Your task to perform on an android device: choose inbox layout in the gmail app Image 0: 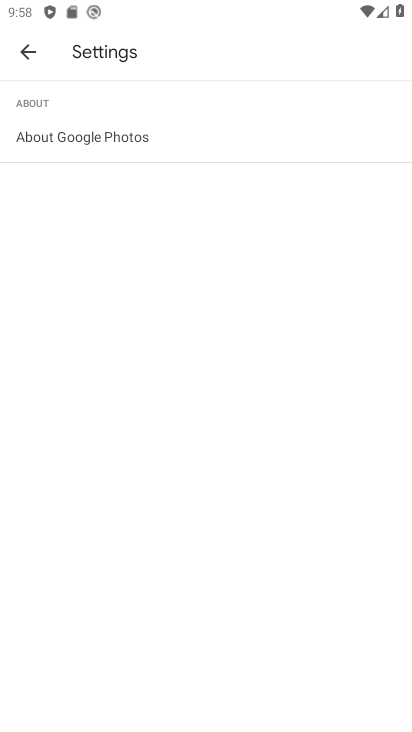
Step 0: press home button
Your task to perform on an android device: choose inbox layout in the gmail app Image 1: 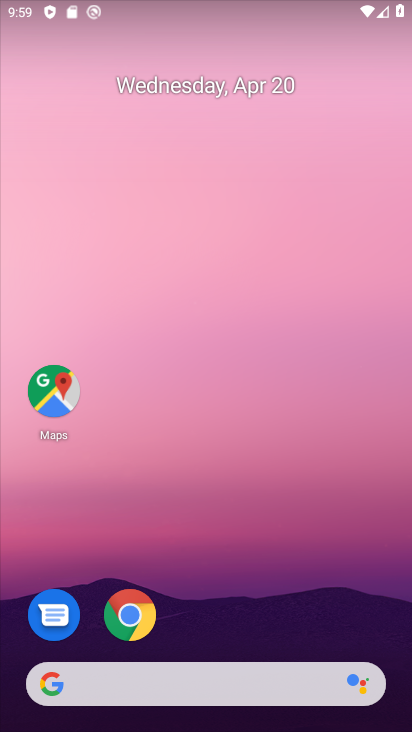
Step 1: drag from (261, 609) to (277, 155)
Your task to perform on an android device: choose inbox layout in the gmail app Image 2: 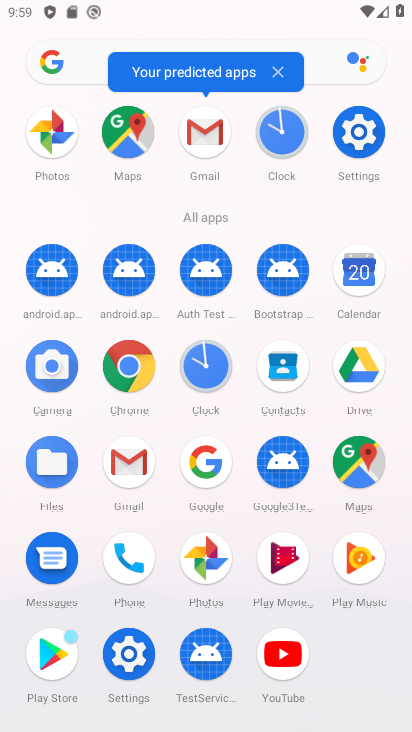
Step 2: click (207, 149)
Your task to perform on an android device: choose inbox layout in the gmail app Image 3: 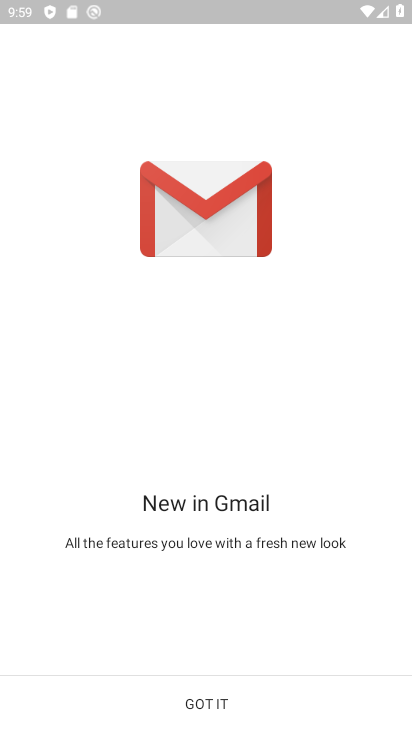
Step 3: click (210, 699)
Your task to perform on an android device: choose inbox layout in the gmail app Image 4: 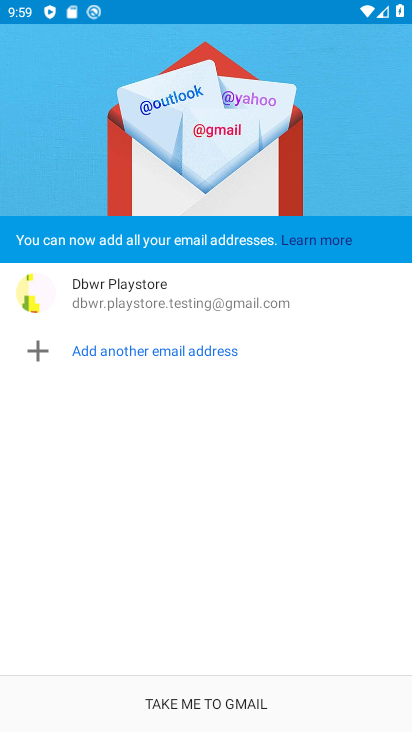
Step 4: click (224, 704)
Your task to perform on an android device: choose inbox layout in the gmail app Image 5: 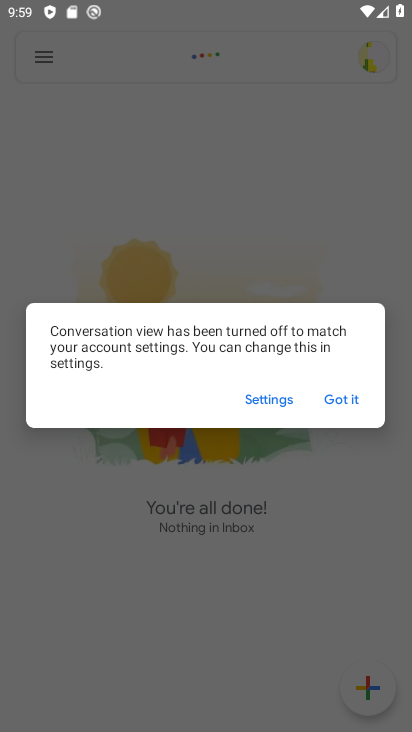
Step 5: click (340, 404)
Your task to perform on an android device: choose inbox layout in the gmail app Image 6: 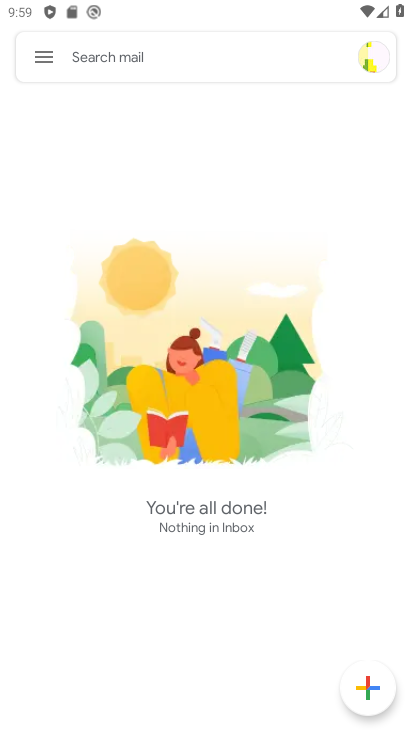
Step 6: click (50, 56)
Your task to perform on an android device: choose inbox layout in the gmail app Image 7: 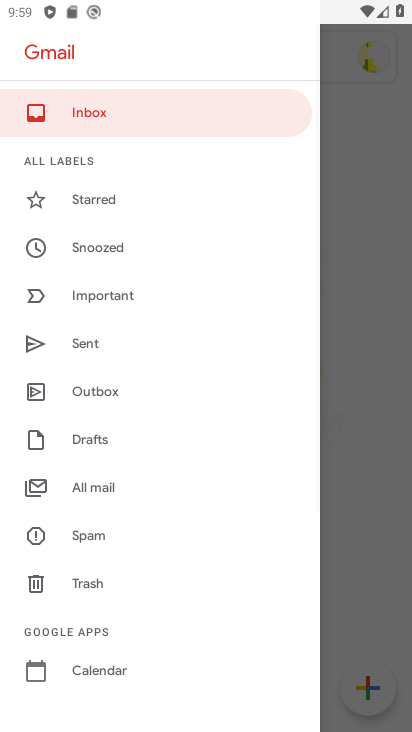
Step 7: click (63, 119)
Your task to perform on an android device: choose inbox layout in the gmail app Image 8: 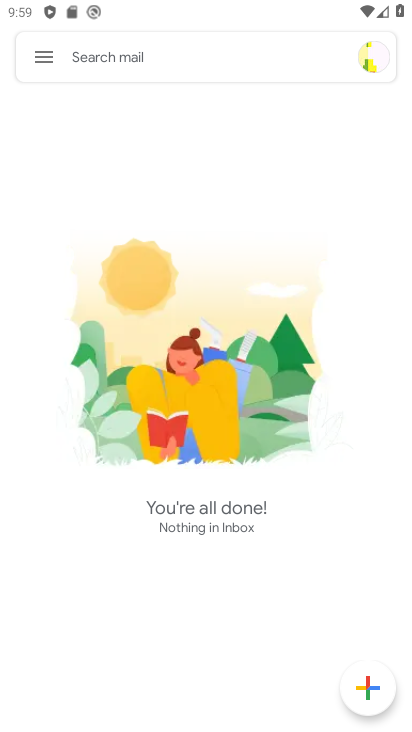
Step 8: task complete